Your task to perform on an android device: Show the shopping cart on bestbuy.com. Search for "razer thresher" on bestbuy.com, select the first entry, and add it to the cart. Image 0: 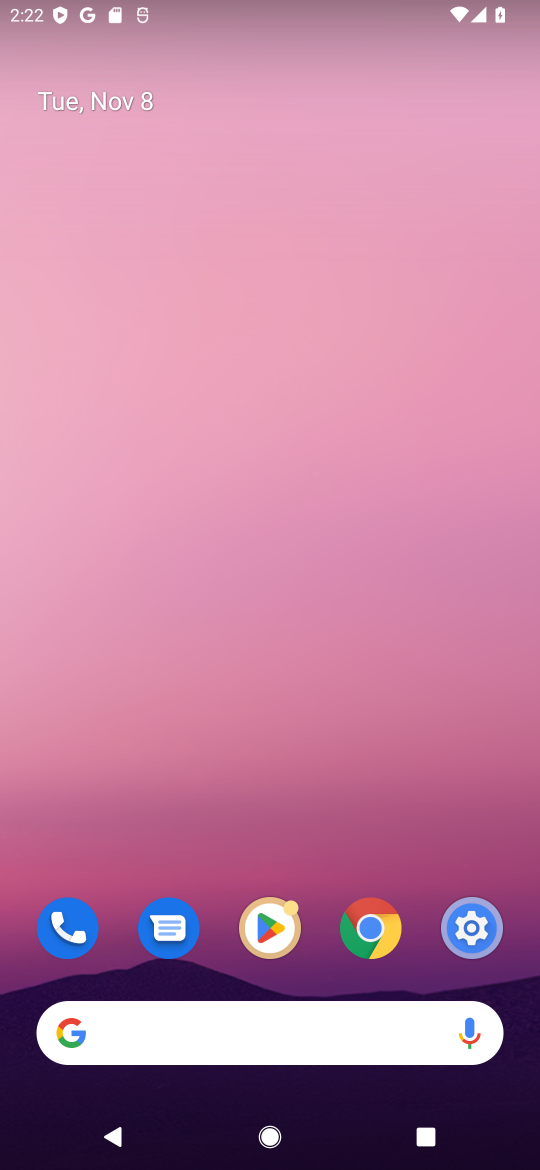
Step 0: click (164, 1042)
Your task to perform on an android device: Show the shopping cart on bestbuy.com. Search for "razer thresher" on bestbuy.com, select the first entry, and add it to the cart. Image 1: 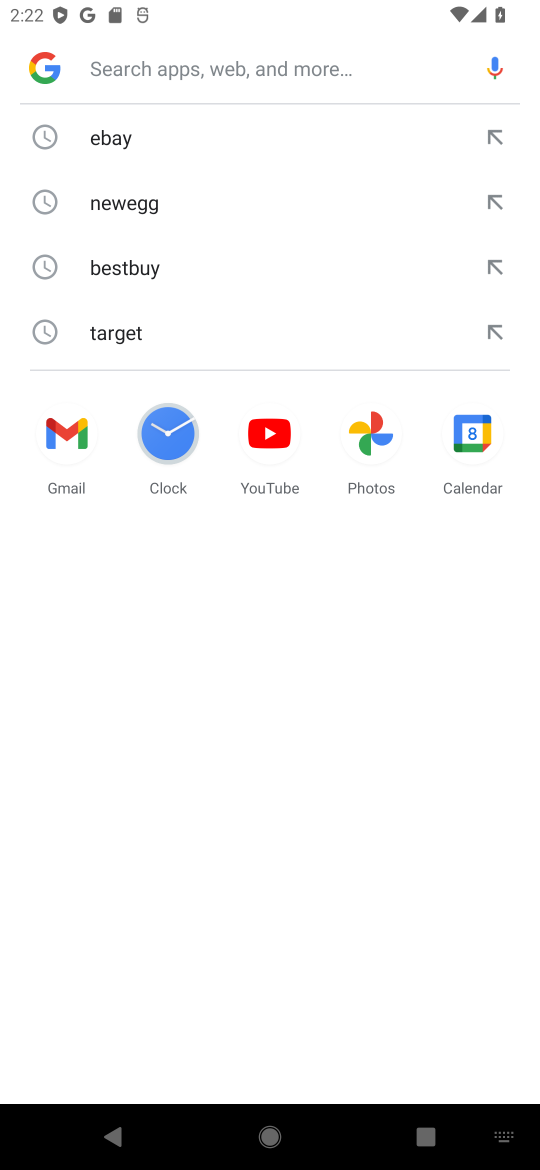
Step 1: type "bestbuy.com"
Your task to perform on an android device: Show the shopping cart on bestbuy.com. Search for "razer thresher" on bestbuy.com, select the first entry, and add it to the cart. Image 2: 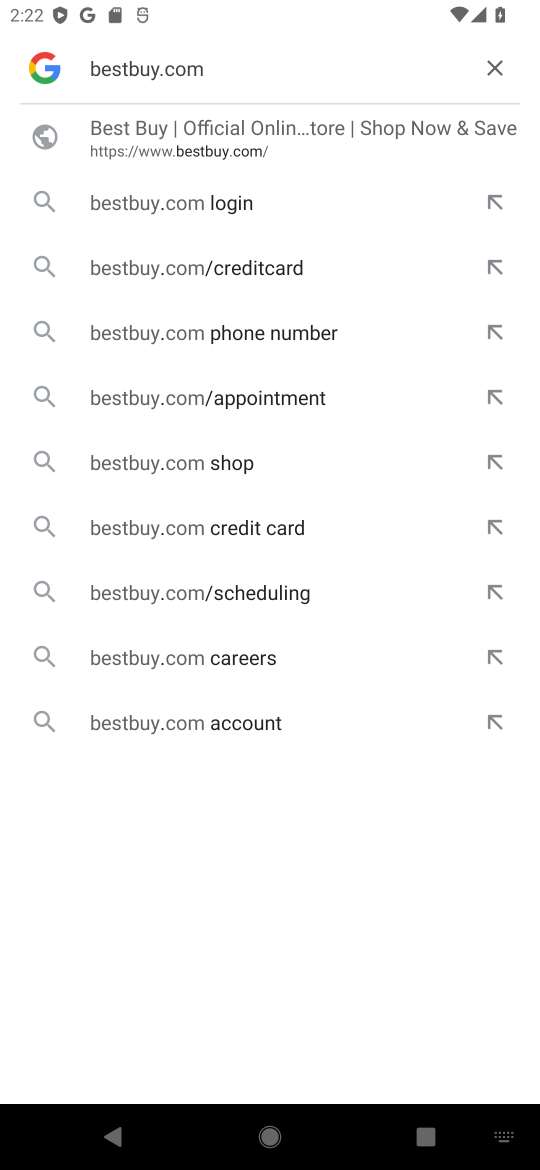
Step 2: click (207, 192)
Your task to perform on an android device: Show the shopping cart on bestbuy.com. Search for "razer thresher" on bestbuy.com, select the first entry, and add it to the cart. Image 3: 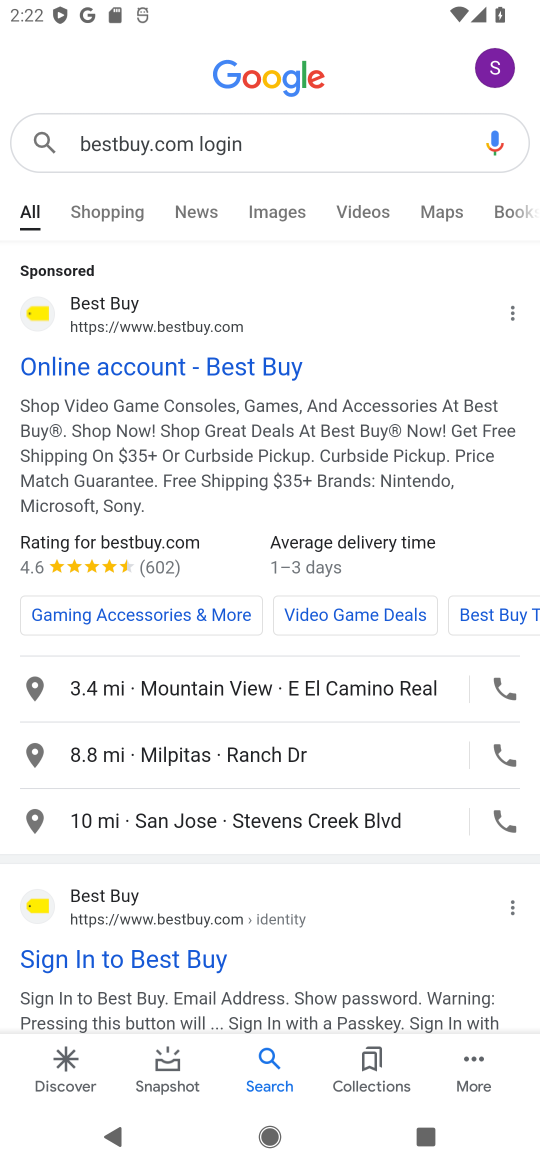
Step 3: click (173, 363)
Your task to perform on an android device: Show the shopping cart on bestbuy.com. Search for "razer thresher" on bestbuy.com, select the first entry, and add it to the cart. Image 4: 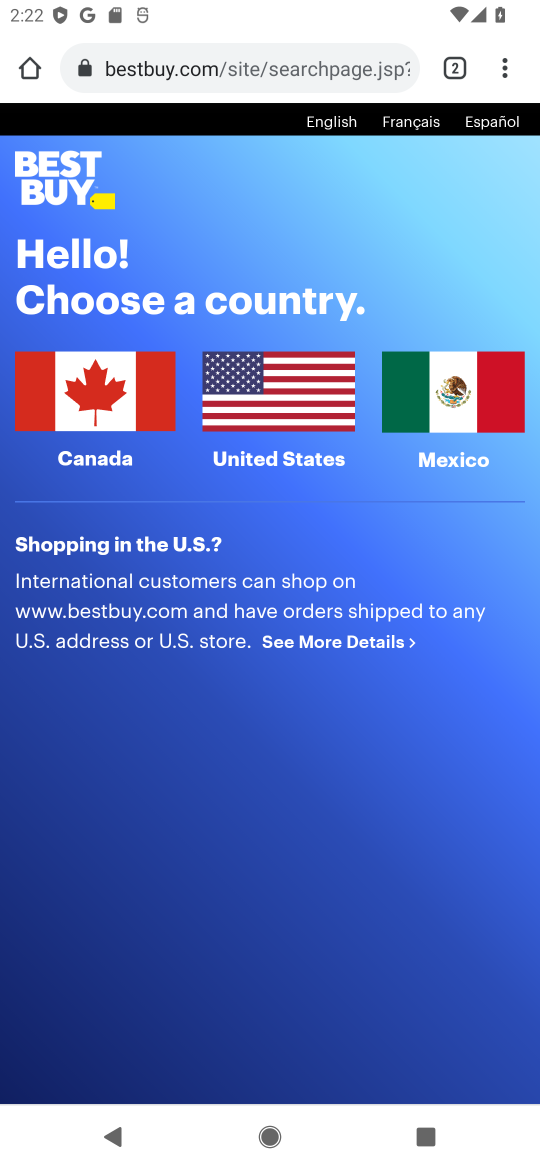
Step 4: click (295, 400)
Your task to perform on an android device: Show the shopping cart on bestbuy.com. Search for "razer thresher" on bestbuy.com, select the first entry, and add it to the cart. Image 5: 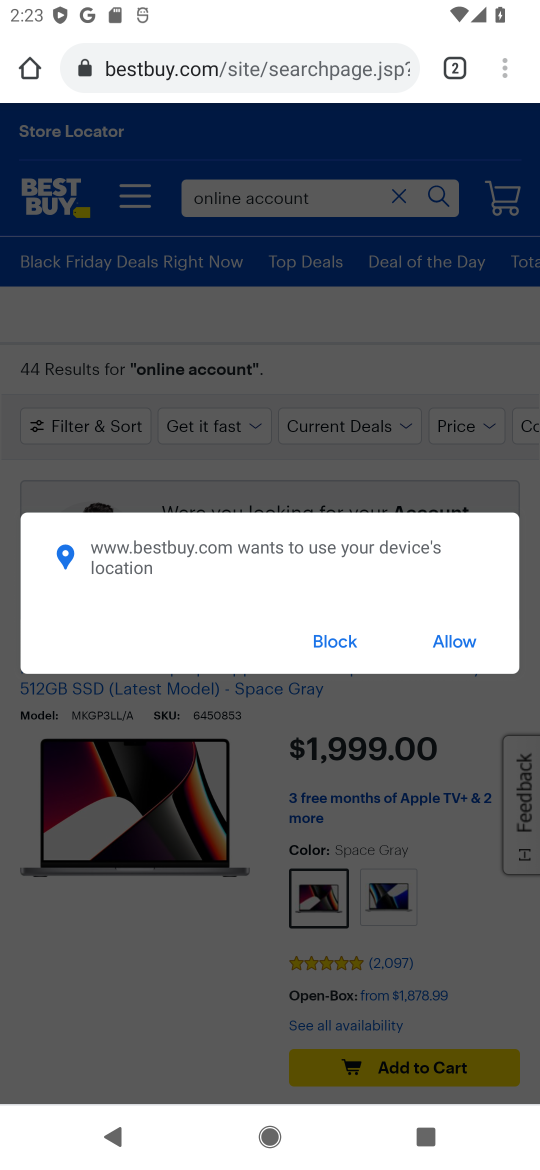
Step 5: click (325, 649)
Your task to perform on an android device: Show the shopping cart on bestbuy.com. Search for "razer thresher" on bestbuy.com, select the first entry, and add it to the cart. Image 6: 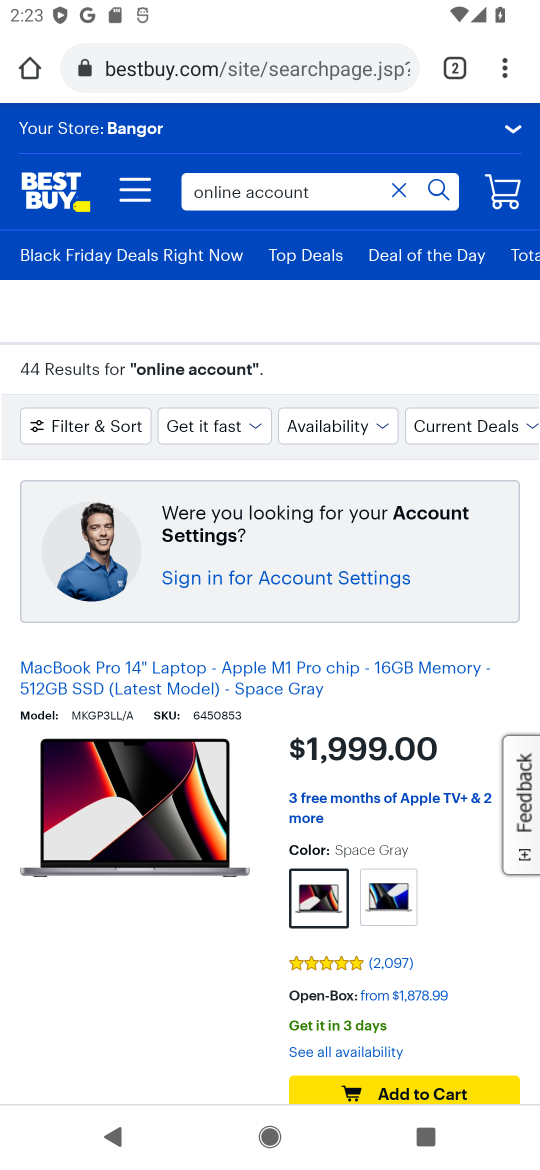
Step 6: click (286, 187)
Your task to perform on an android device: Show the shopping cart on bestbuy.com. Search for "razer thresher" on bestbuy.com, select the first entry, and add it to the cart. Image 7: 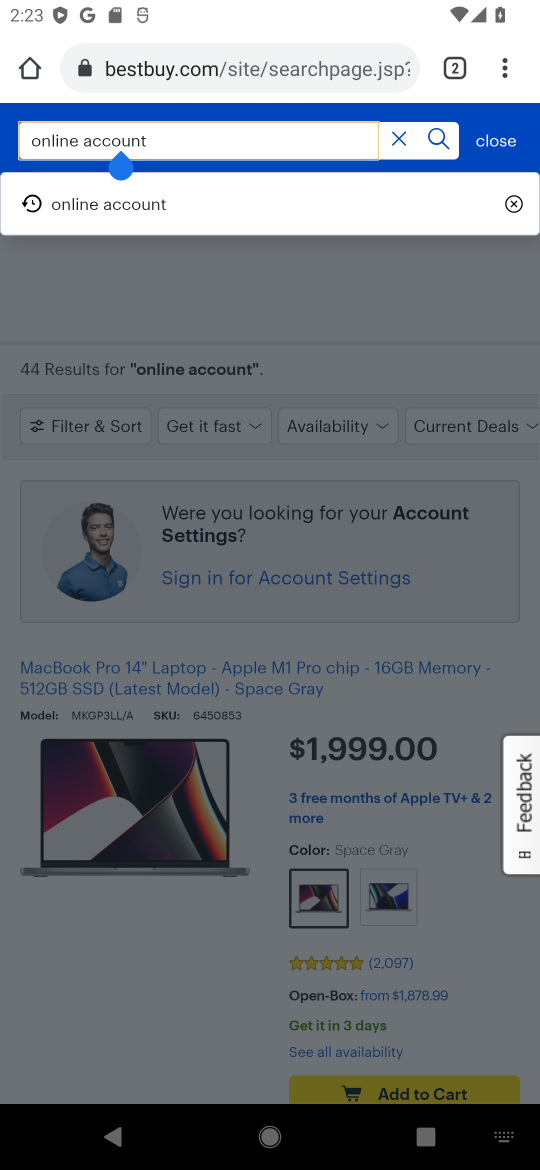
Step 7: click (402, 148)
Your task to perform on an android device: Show the shopping cart on bestbuy.com. Search for "razer thresher" on bestbuy.com, select the first entry, and add it to the cart. Image 8: 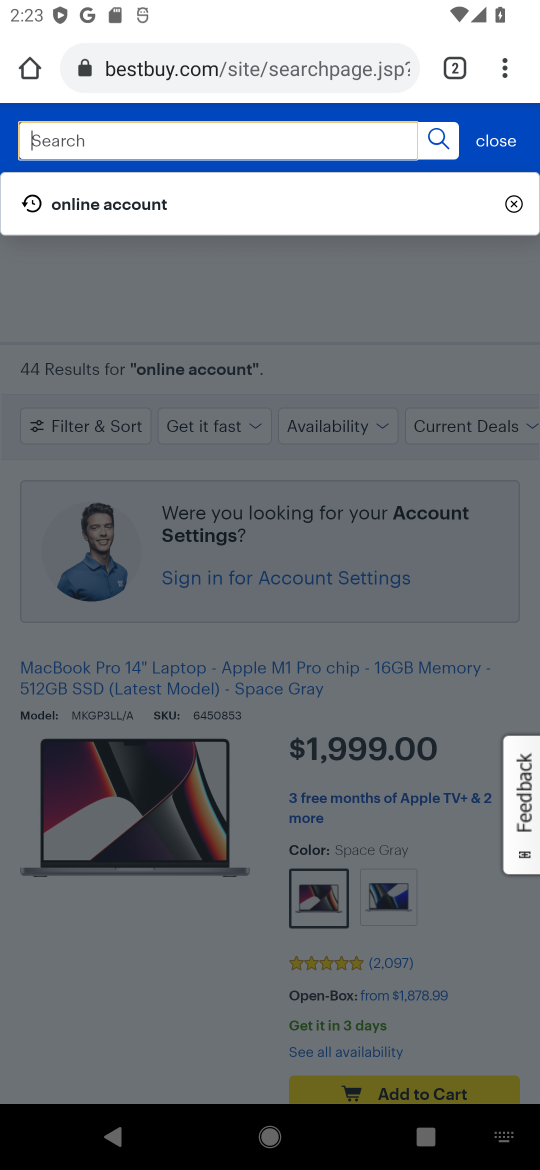
Step 8: type "razer thresher"
Your task to perform on an android device: Show the shopping cart on bestbuy.com. Search for "razer thresher" on bestbuy.com, select the first entry, and add it to the cart. Image 9: 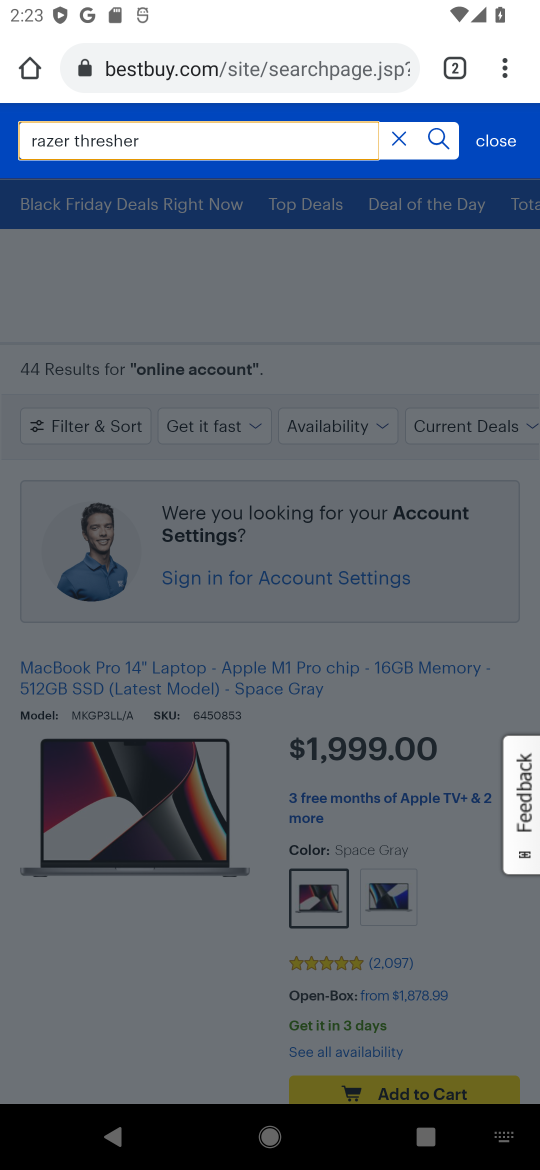
Step 9: click (439, 136)
Your task to perform on an android device: Show the shopping cart on bestbuy.com. Search for "razer thresher" on bestbuy.com, select the first entry, and add it to the cart. Image 10: 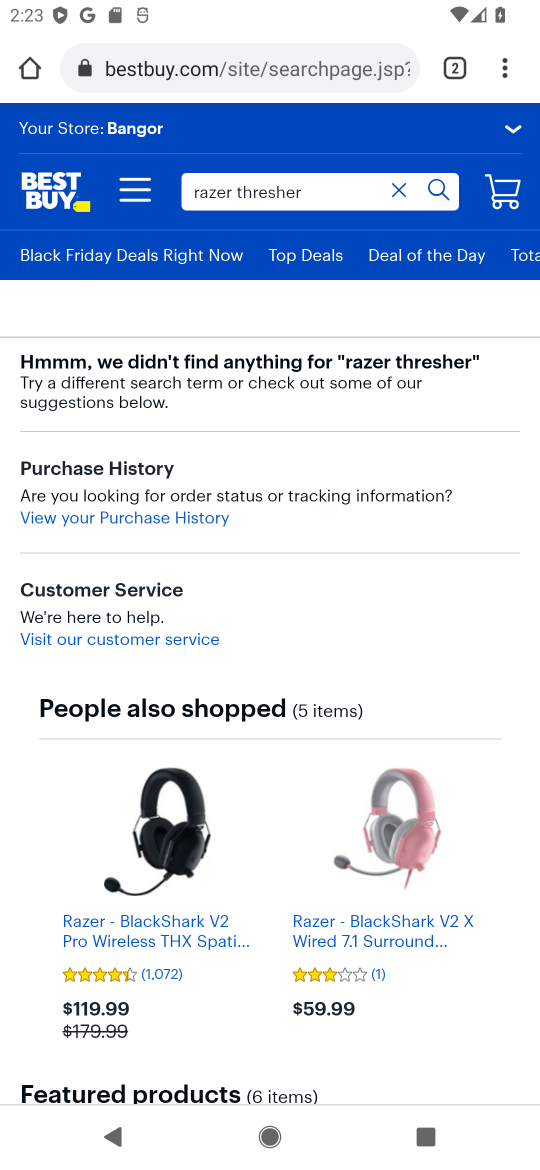
Step 10: click (140, 930)
Your task to perform on an android device: Show the shopping cart on bestbuy.com. Search for "razer thresher" on bestbuy.com, select the first entry, and add it to the cart. Image 11: 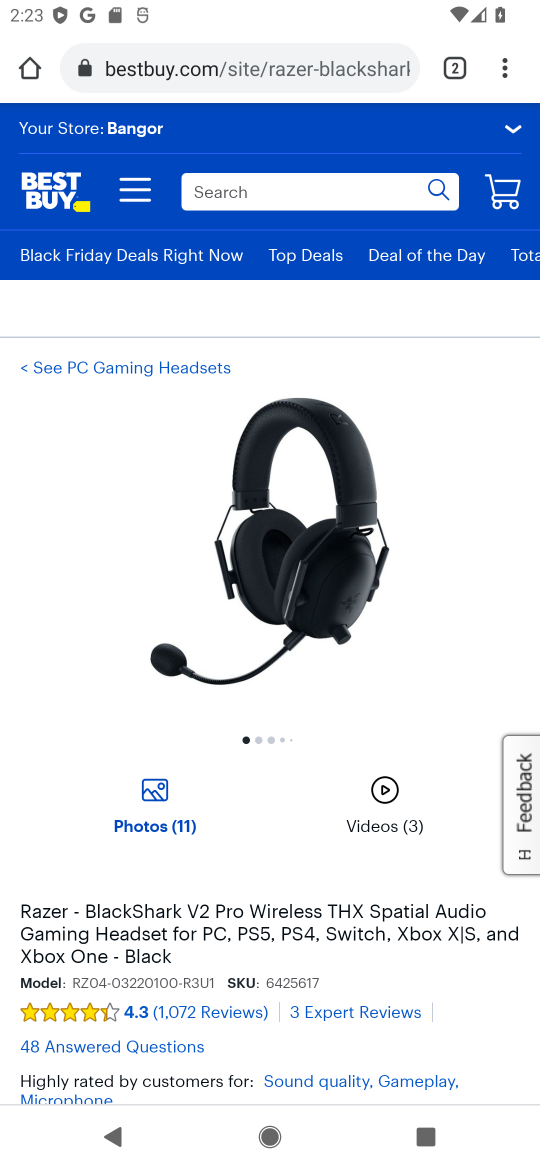
Step 11: drag from (385, 861) to (352, 451)
Your task to perform on an android device: Show the shopping cart on bestbuy.com. Search for "razer thresher" on bestbuy.com, select the first entry, and add it to the cart. Image 12: 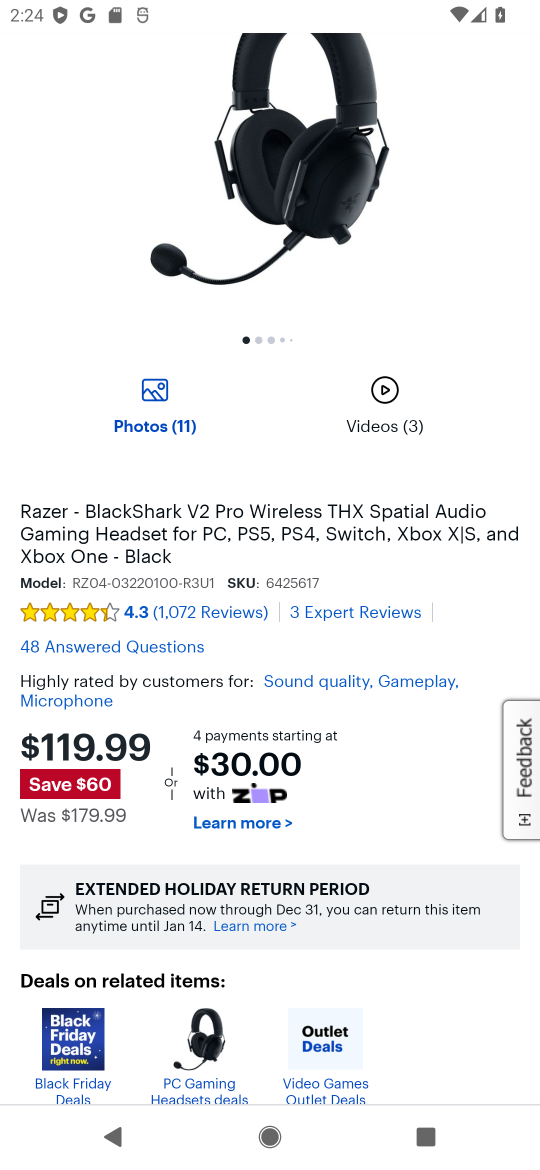
Step 12: drag from (367, 807) to (367, 356)
Your task to perform on an android device: Show the shopping cart on bestbuy.com. Search for "razer thresher" on bestbuy.com, select the first entry, and add it to the cart. Image 13: 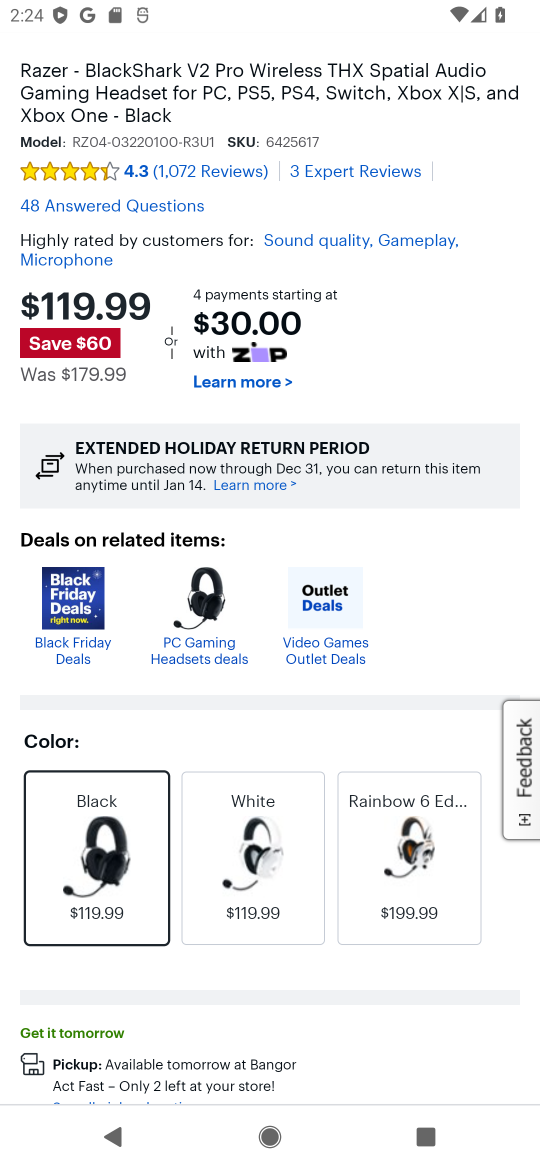
Step 13: drag from (377, 739) to (376, 370)
Your task to perform on an android device: Show the shopping cart on bestbuy.com. Search for "razer thresher" on bestbuy.com, select the first entry, and add it to the cart. Image 14: 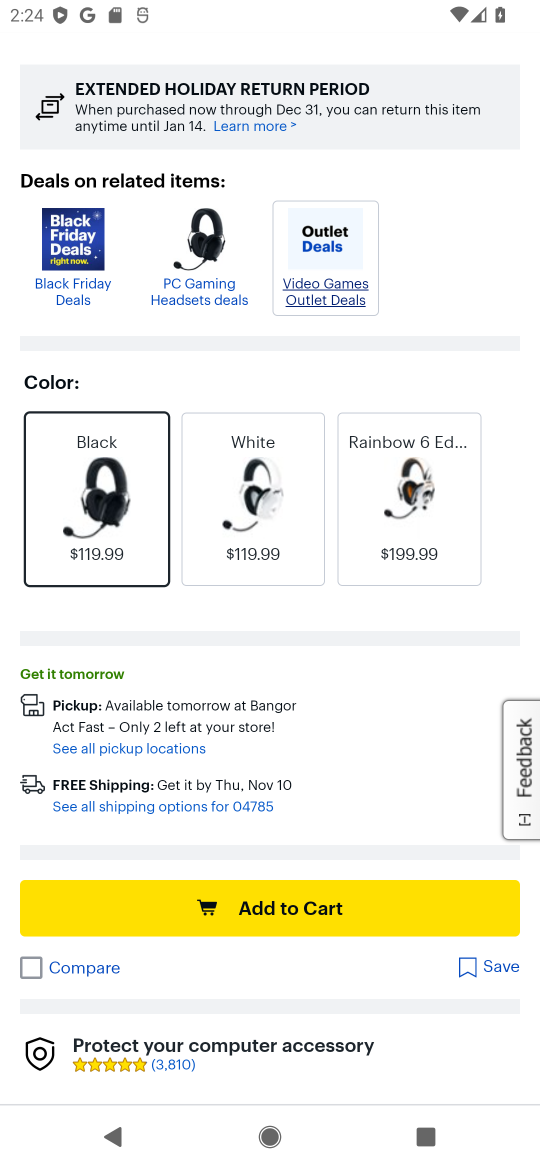
Step 14: drag from (367, 930) to (279, 901)
Your task to perform on an android device: Show the shopping cart on bestbuy.com. Search for "razer thresher" on bestbuy.com, select the first entry, and add it to the cart. Image 15: 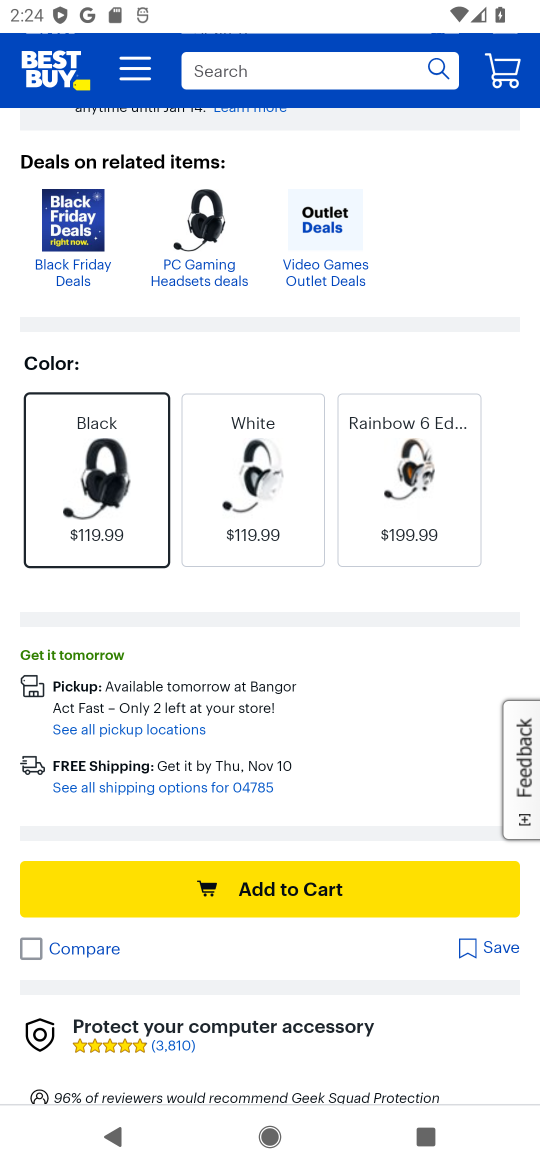
Step 15: click (275, 896)
Your task to perform on an android device: Show the shopping cart on bestbuy.com. Search for "razer thresher" on bestbuy.com, select the first entry, and add it to the cart. Image 16: 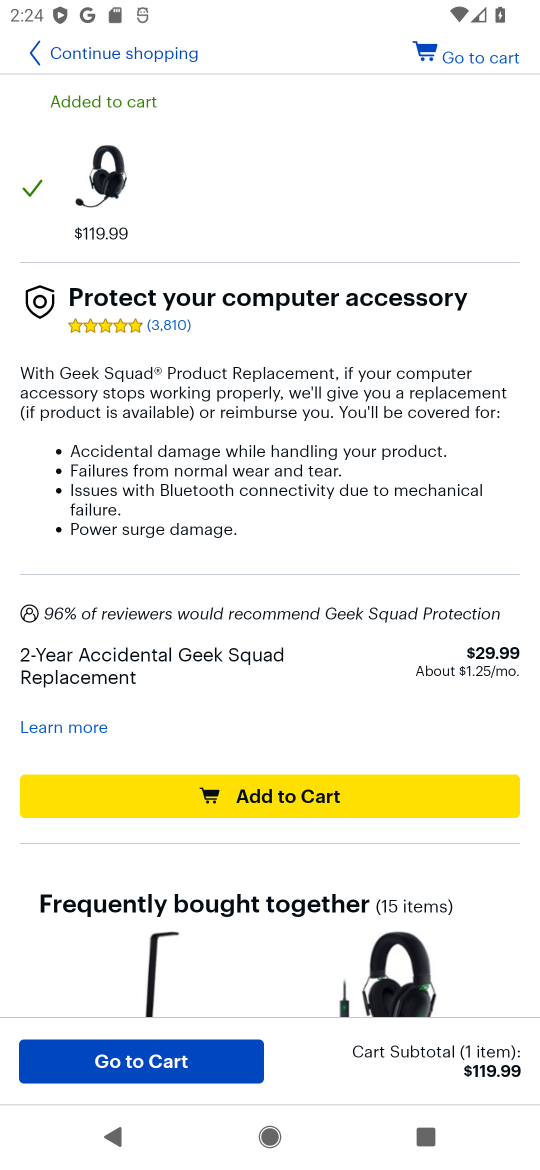
Step 16: task complete